Your task to perform on an android device: open app "Venmo" (install if not already installed) Image 0: 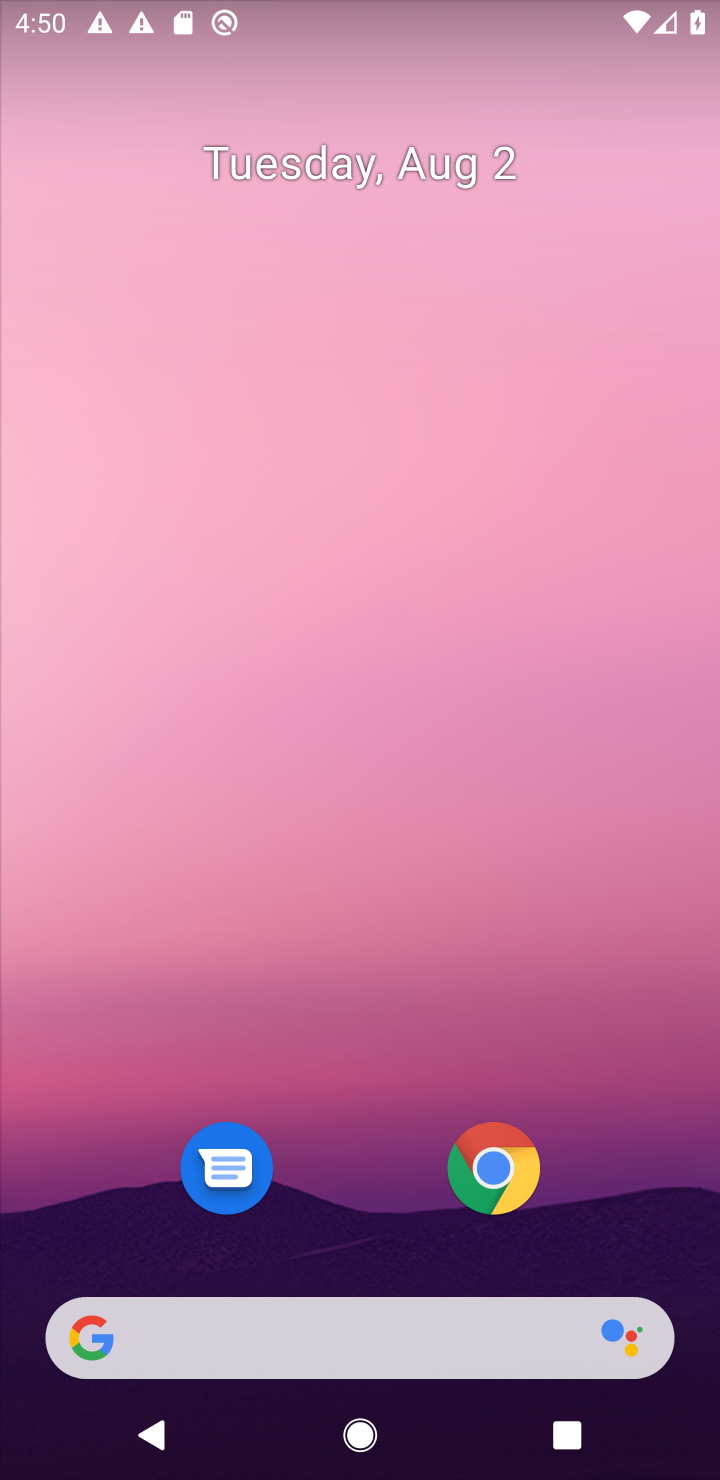
Step 0: drag from (298, 1085) to (381, 4)
Your task to perform on an android device: open app "Venmo" (install if not already installed) Image 1: 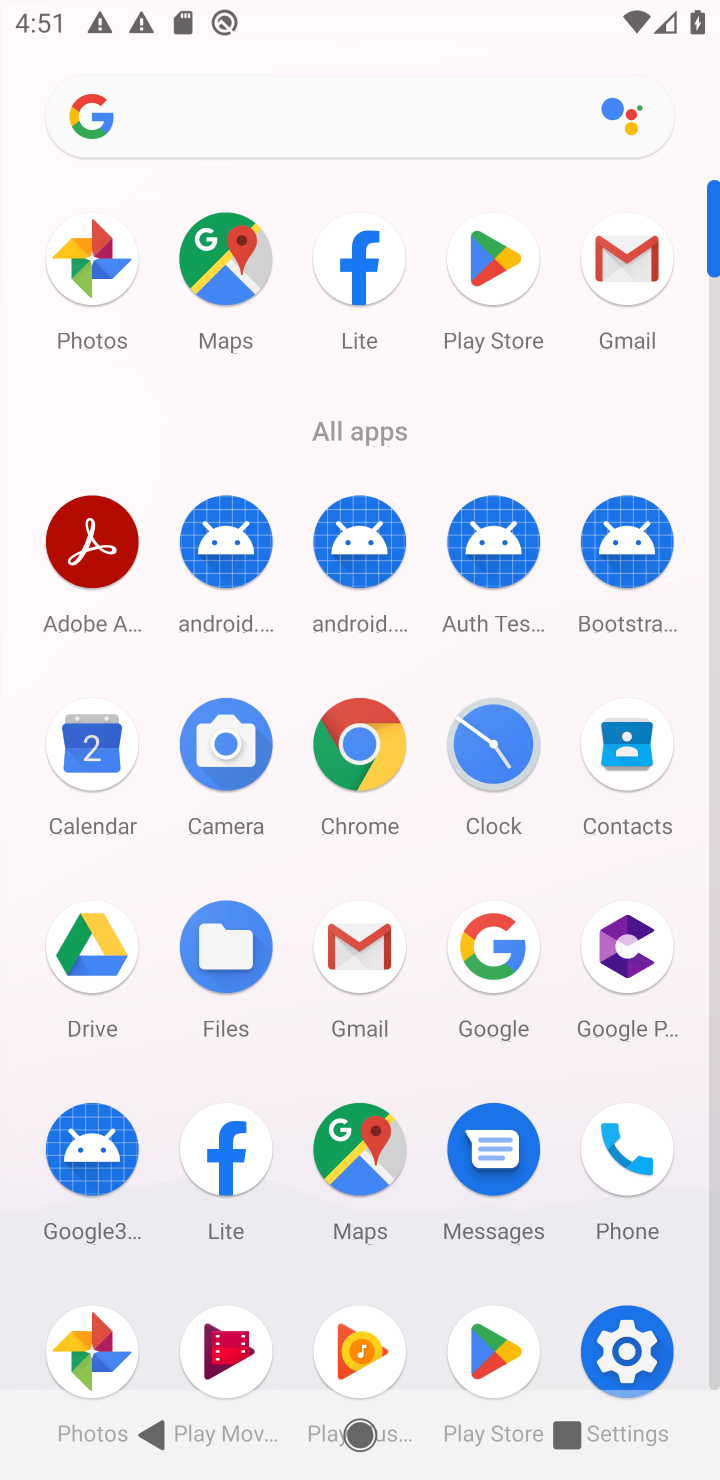
Step 1: click (512, 281)
Your task to perform on an android device: open app "Venmo" (install if not already installed) Image 2: 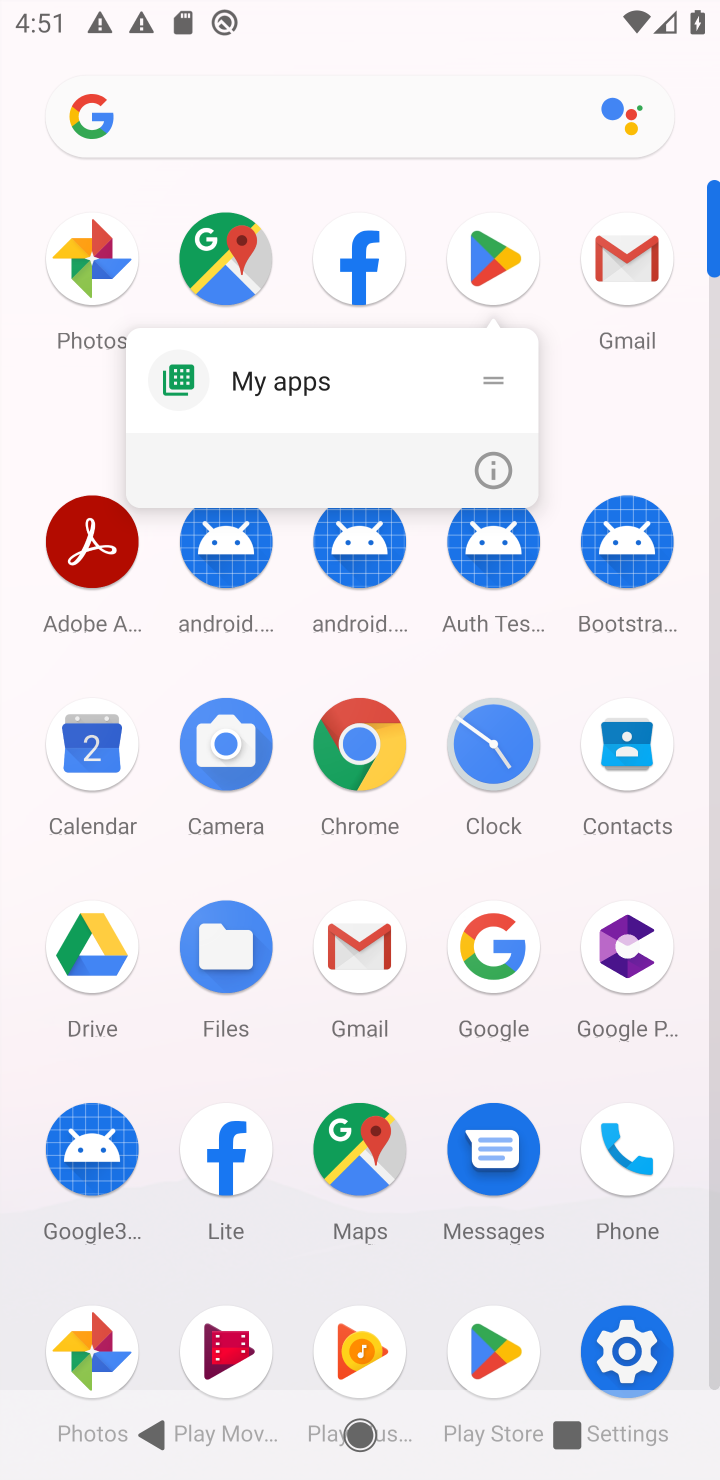
Step 2: click (512, 286)
Your task to perform on an android device: open app "Venmo" (install if not already installed) Image 3: 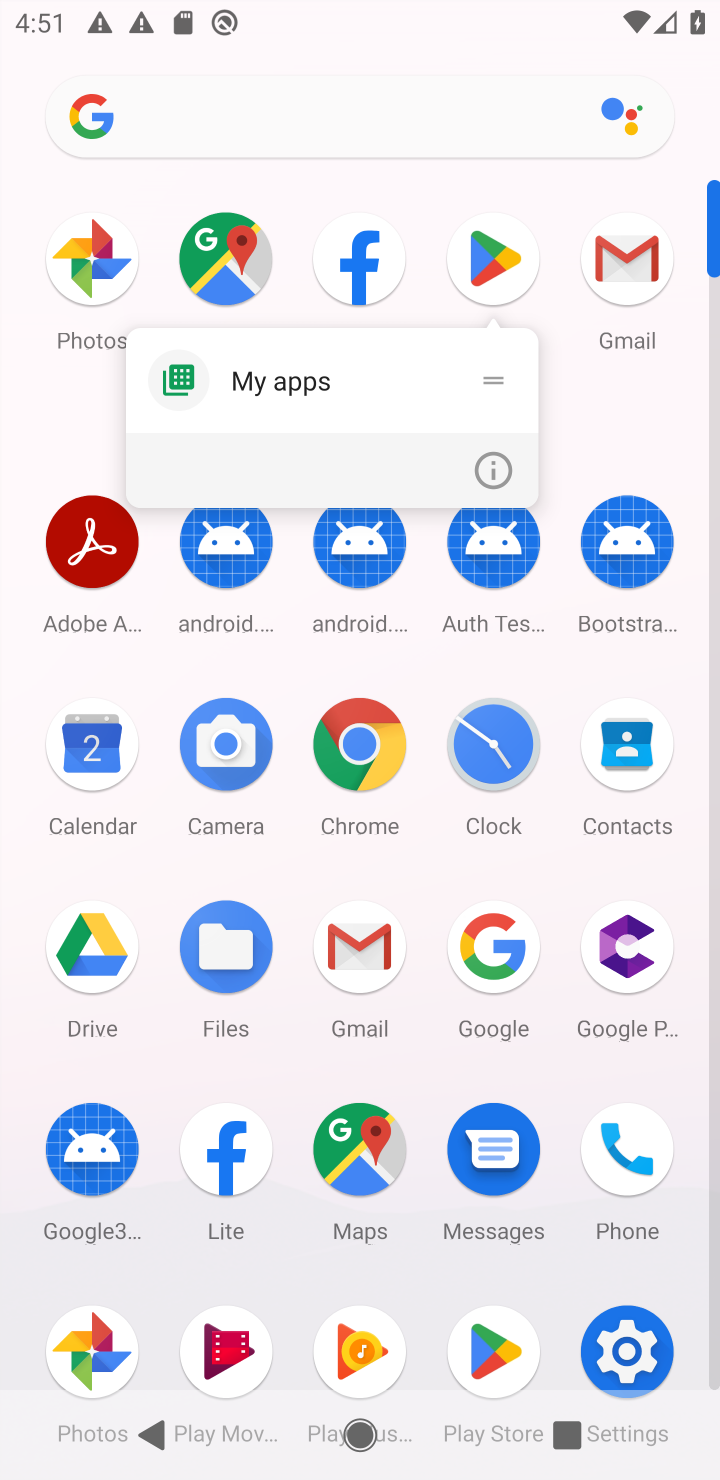
Step 3: click (472, 271)
Your task to perform on an android device: open app "Venmo" (install if not already installed) Image 4: 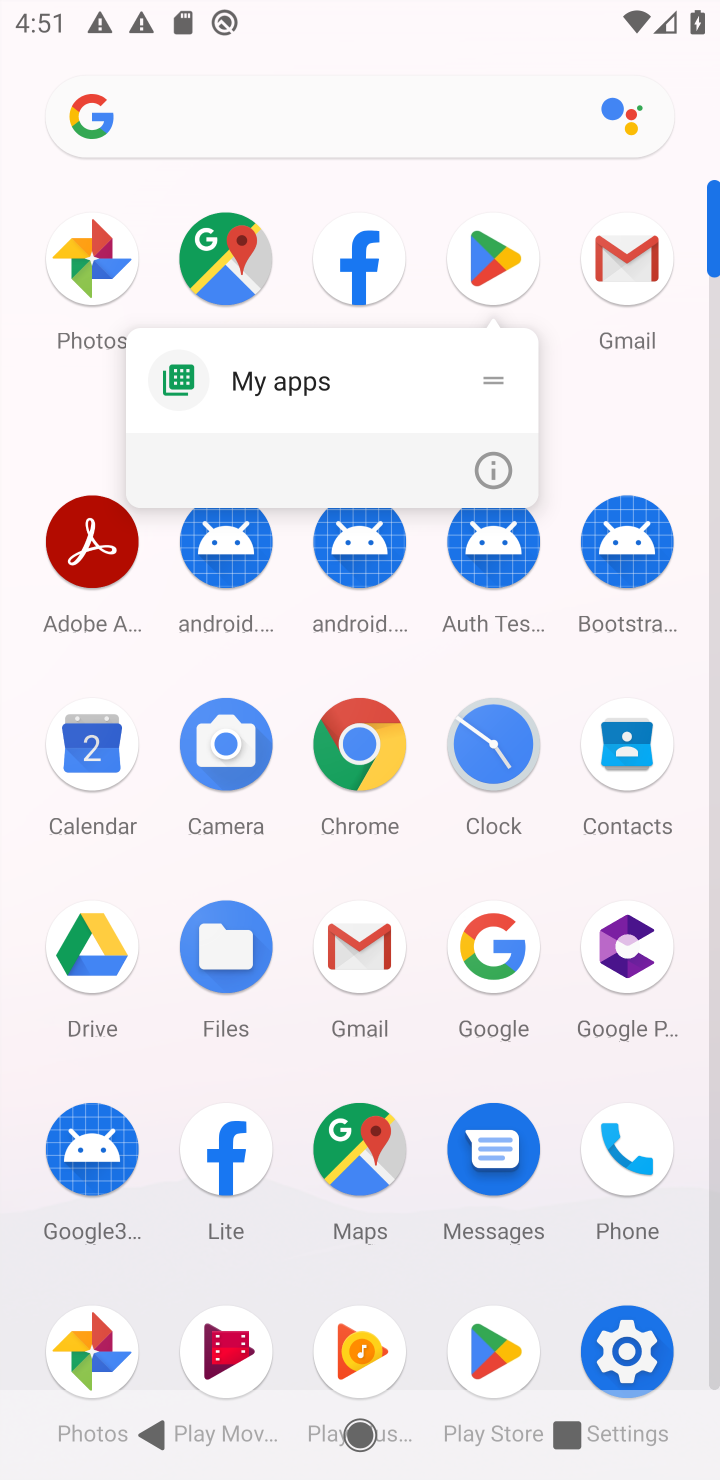
Step 4: click (493, 259)
Your task to perform on an android device: open app "Venmo" (install if not already installed) Image 5: 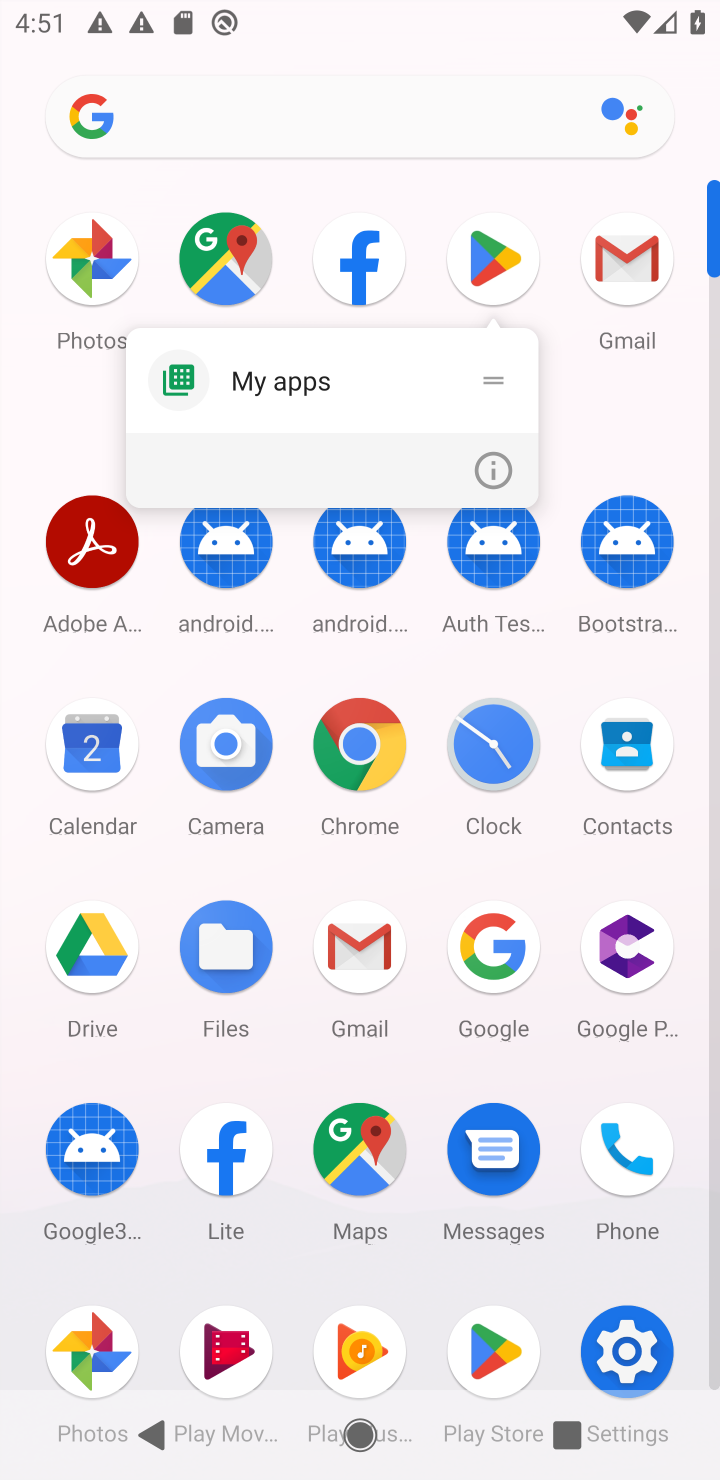
Step 5: click (481, 263)
Your task to perform on an android device: open app "Venmo" (install if not already installed) Image 6: 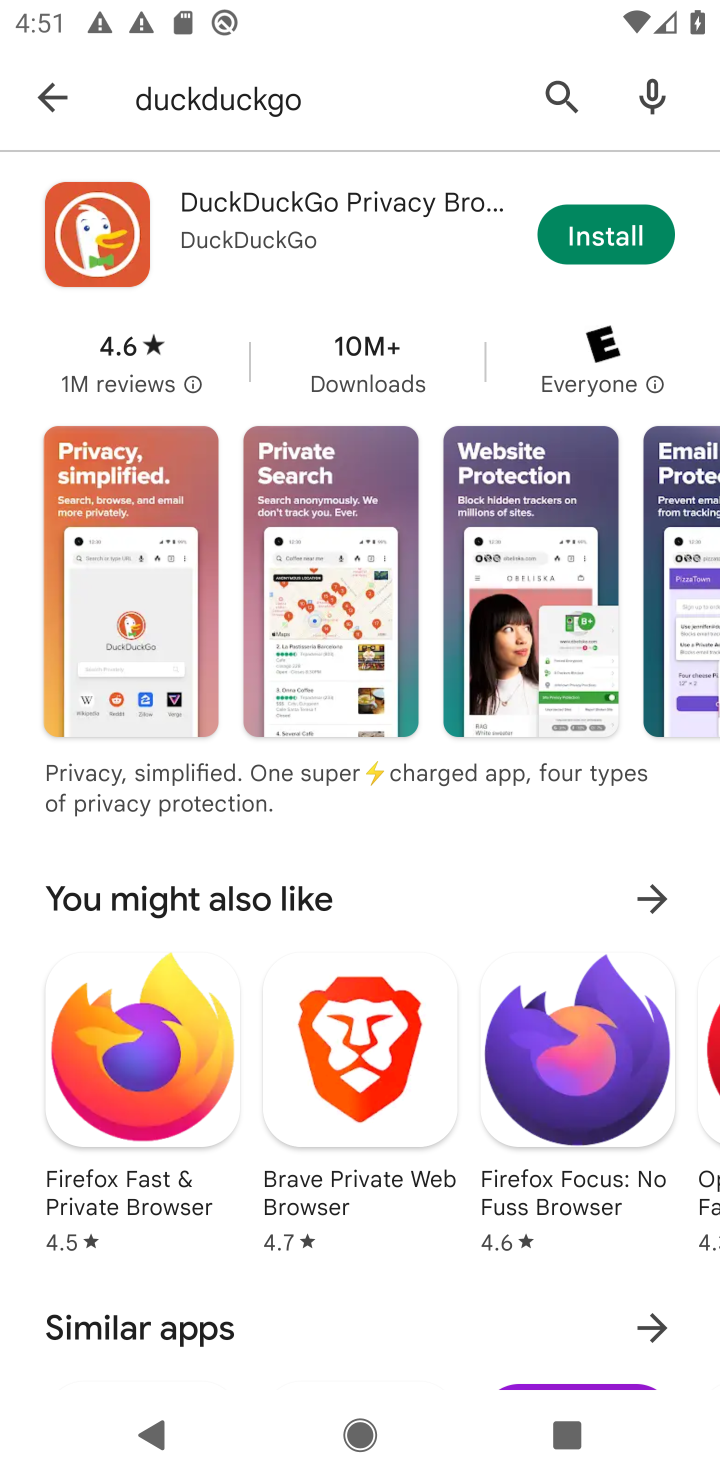
Step 6: click (298, 97)
Your task to perform on an android device: open app "Venmo" (install if not already installed) Image 7: 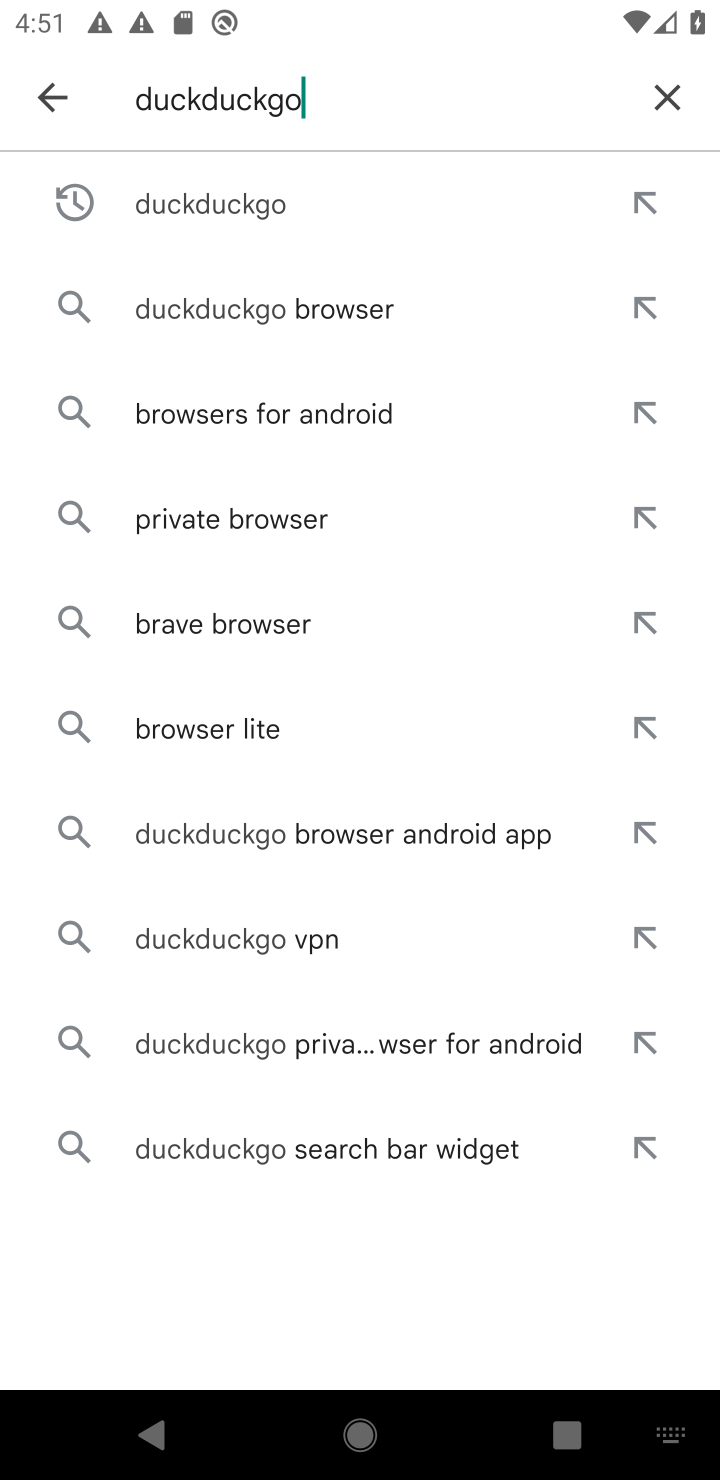
Step 7: click (657, 90)
Your task to perform on an android device: open app "Venmo" (install if not already installed) Image 8: 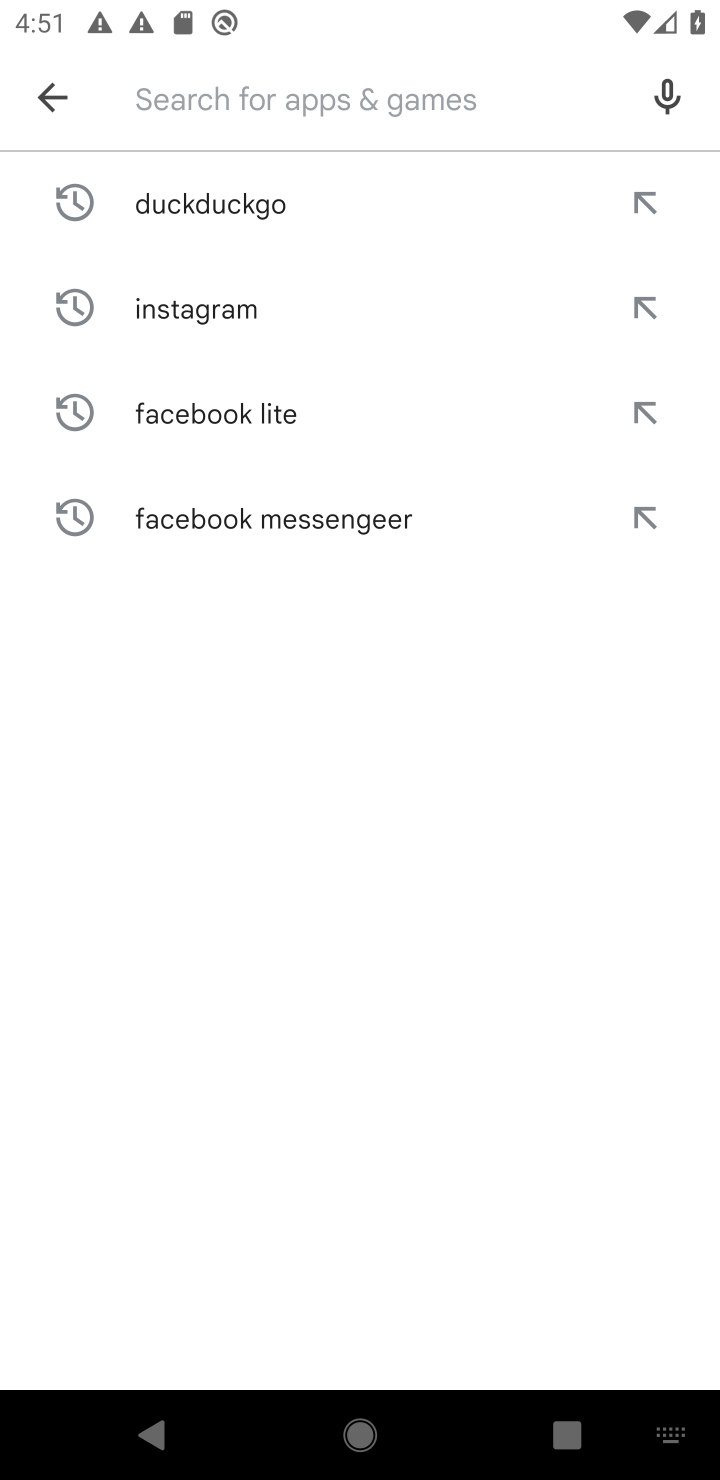
Step 8: type "venmo"
Your task to perform on an android device: open app "Venmo" (install if not already installed) Image 9: 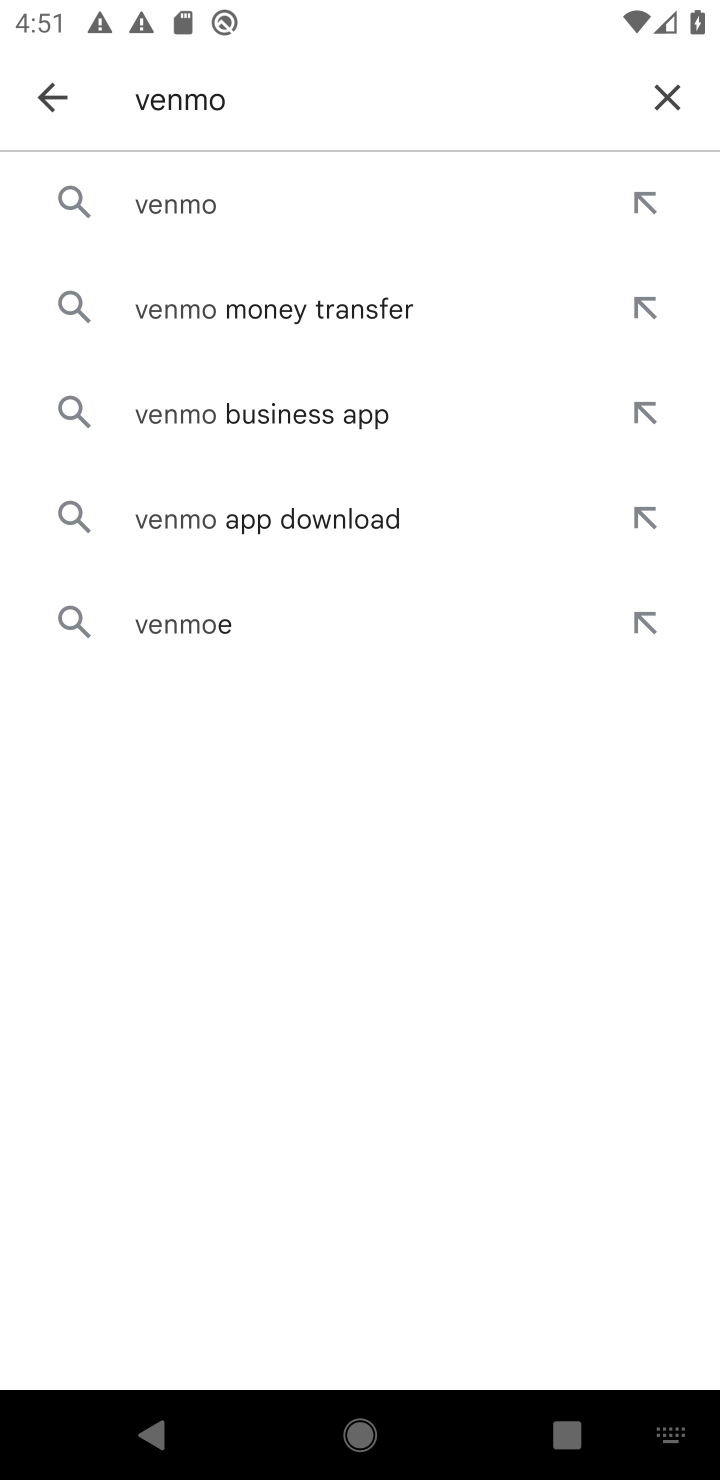
Step 9: click (193, 201)
Your task to perform on an android device: open app "Venmo" (install if not already installed) Image 10: 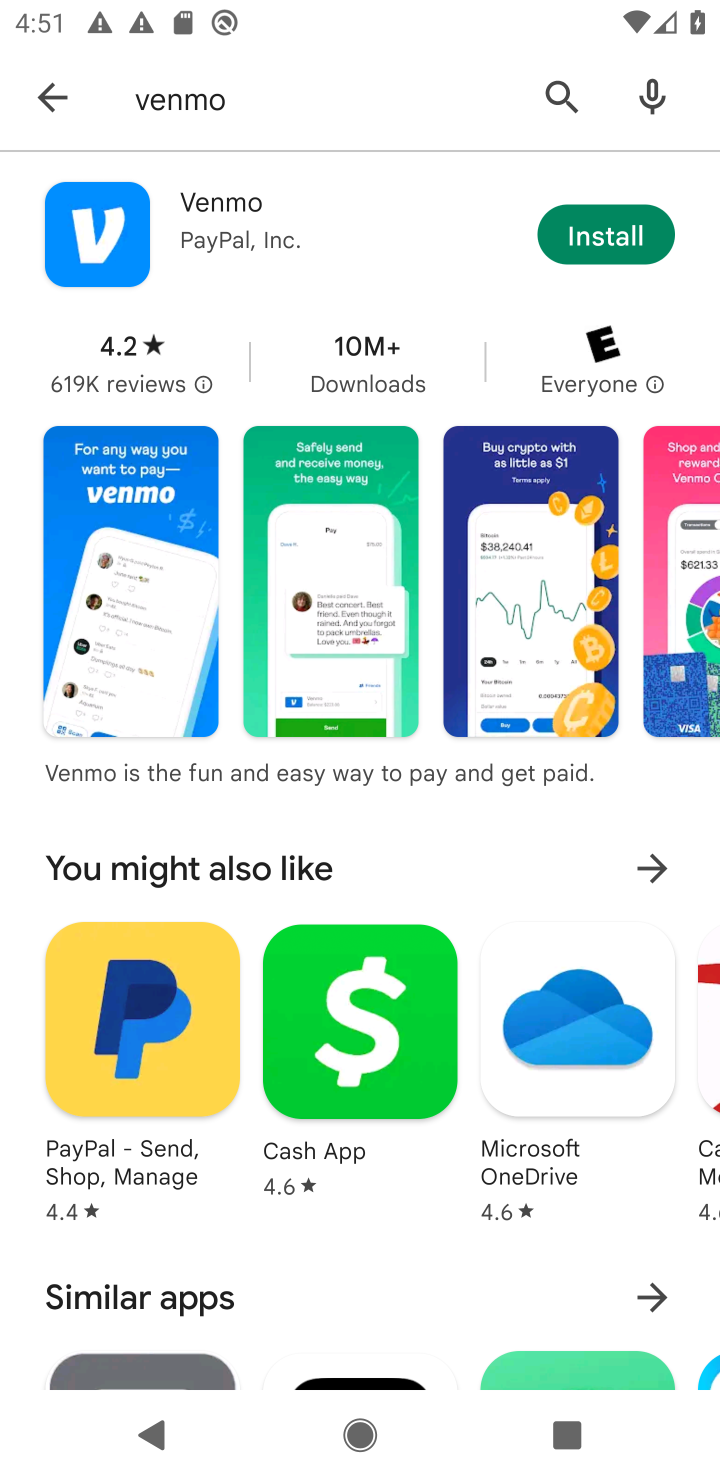
Step 10: click (603, 227)
Your task to perform on an android device: open app "Venmo" (install if not already installed) Image 11: 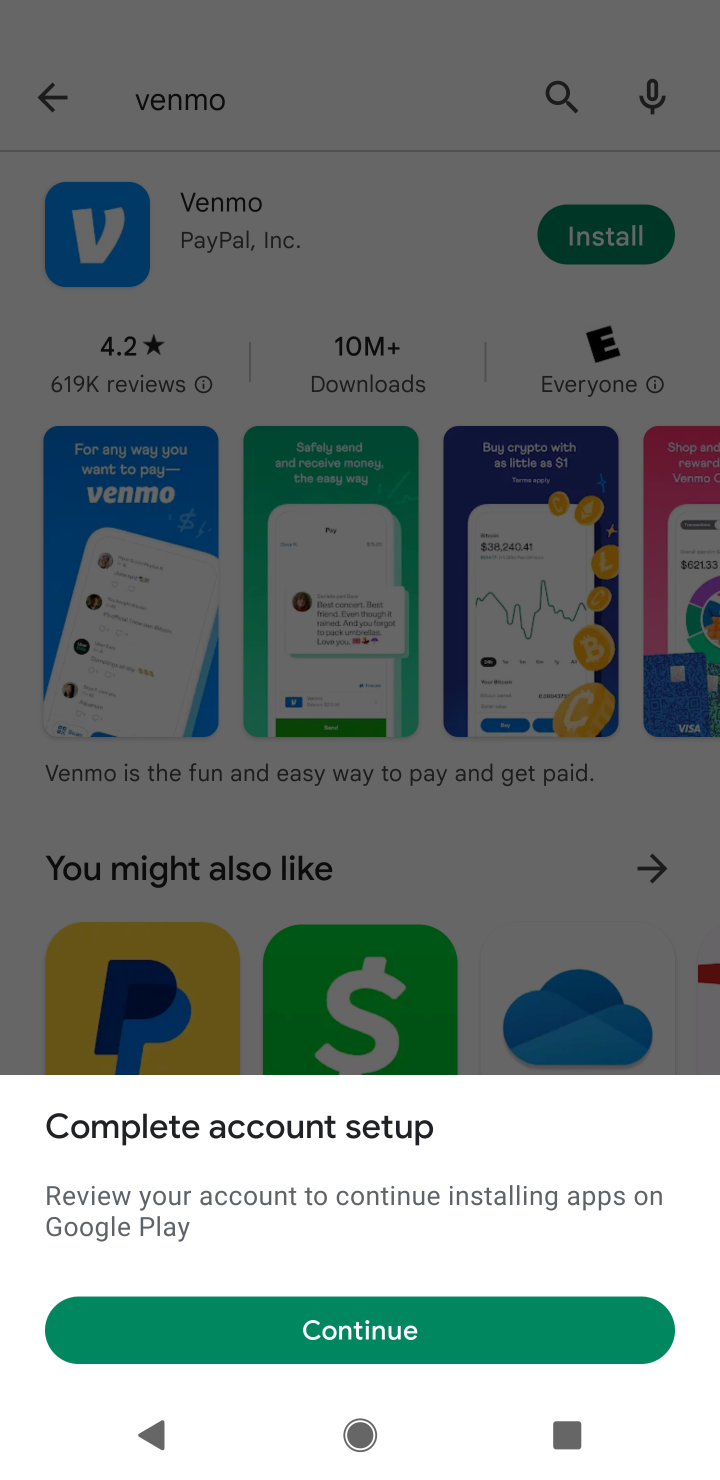
Step 11: click (299, 1338)
Your task to perform on an android device: open app "Venmo" (install if not already installed) Image 12: 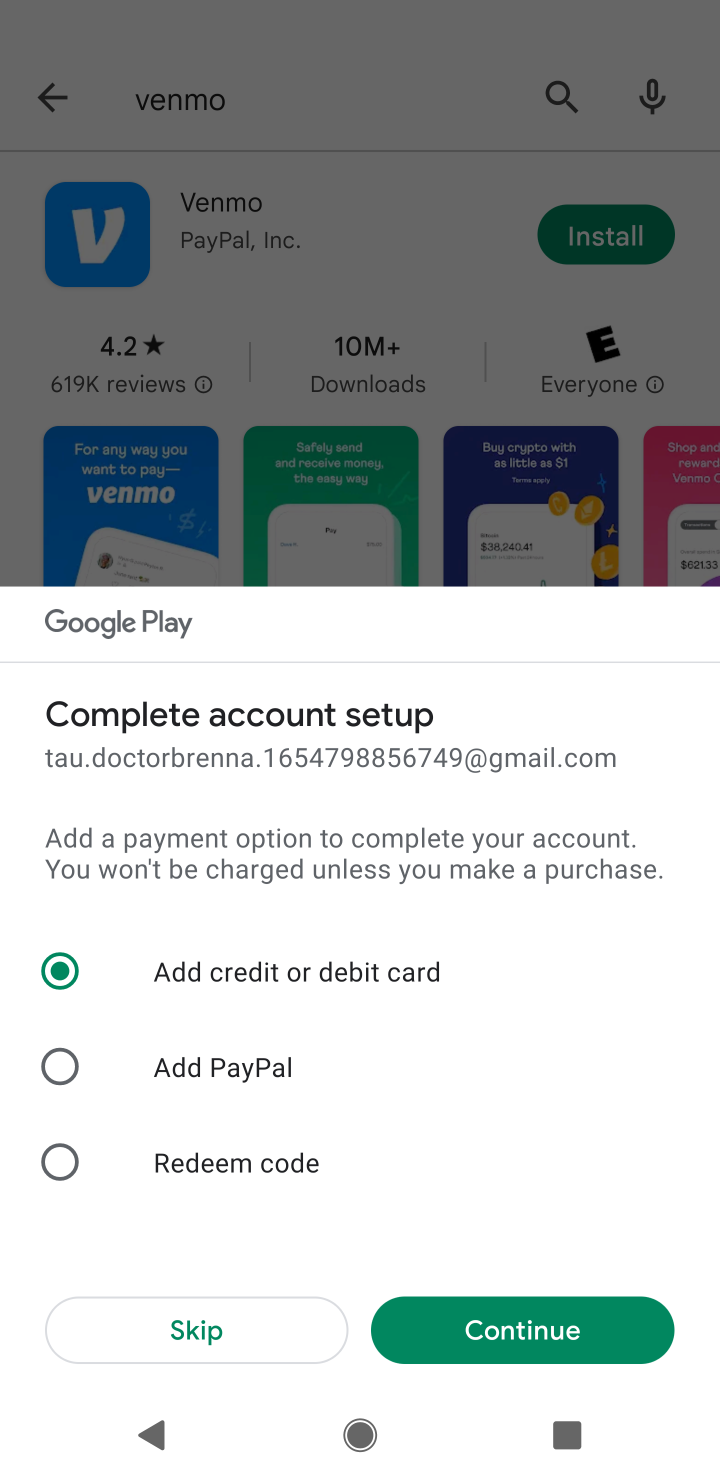
Step 12: click (200, 1333)
Your task to perform on an android device: open app "Venmo" (install if not already installed) Image 13: 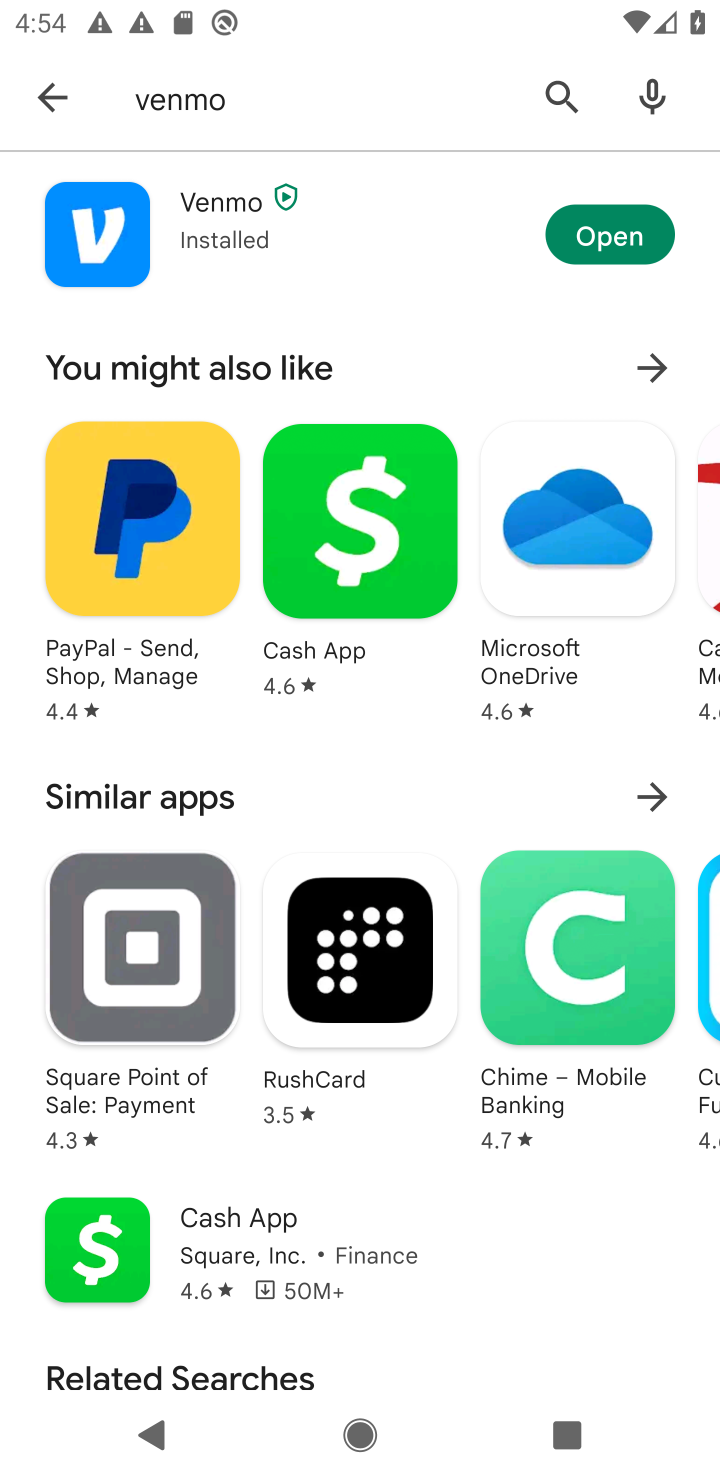
Step 13: click (628, 251)
Your task to perform on an android device: open app "Venmo" (install if not already installed) Image 14: 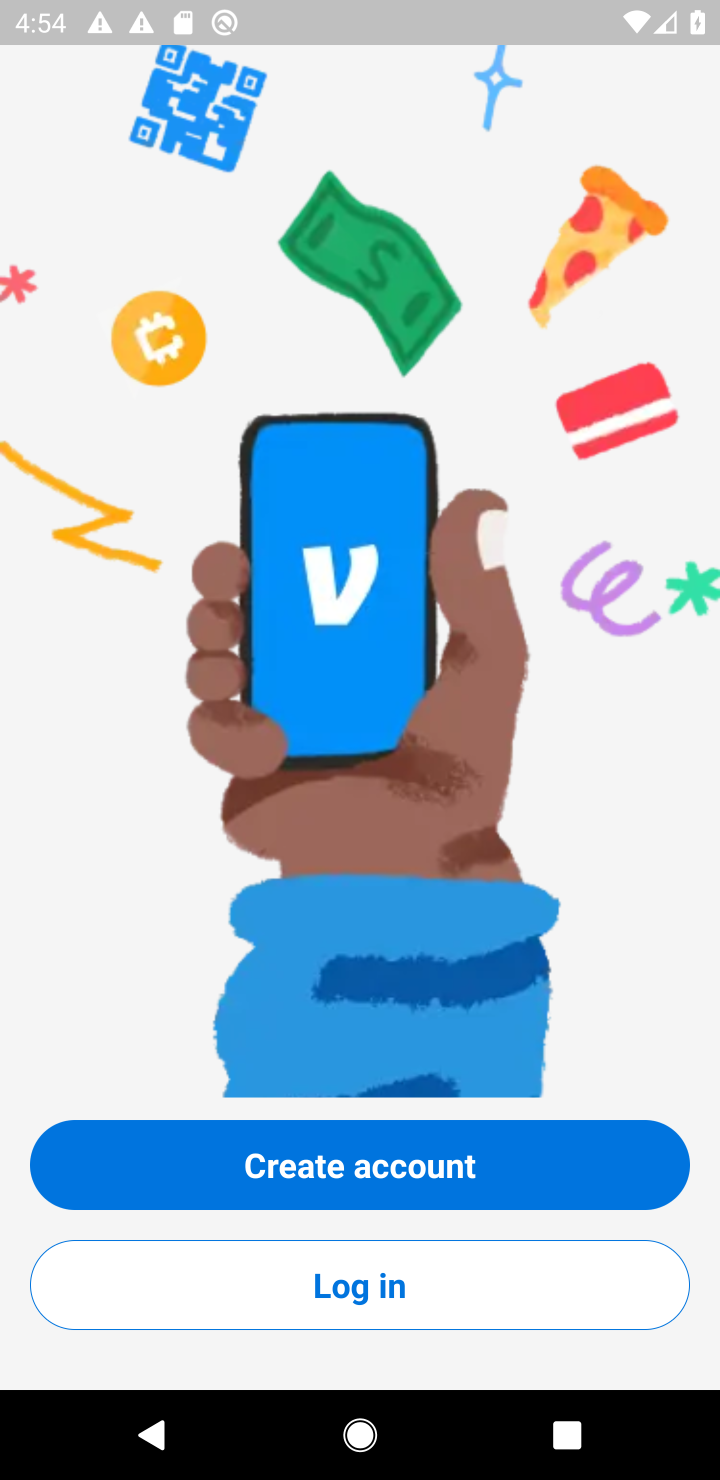
Step 14: task complete